Your task to perform on an android device: turn on notifications settings in the gmail app Image 0: 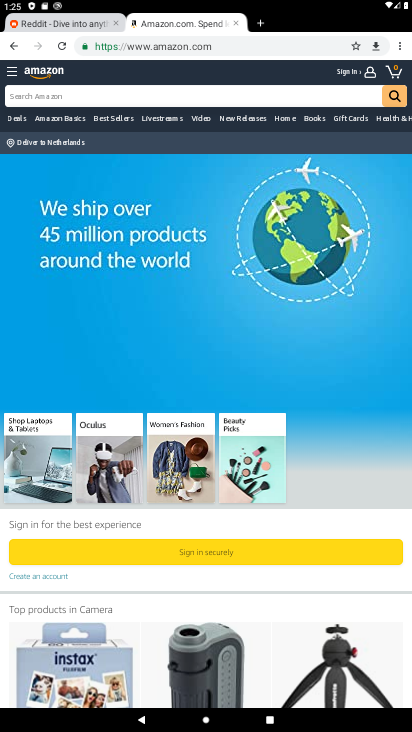
Step 0: press home button
Your task to perform on an android device: turn on notifications settings in the gmail app Image 1: 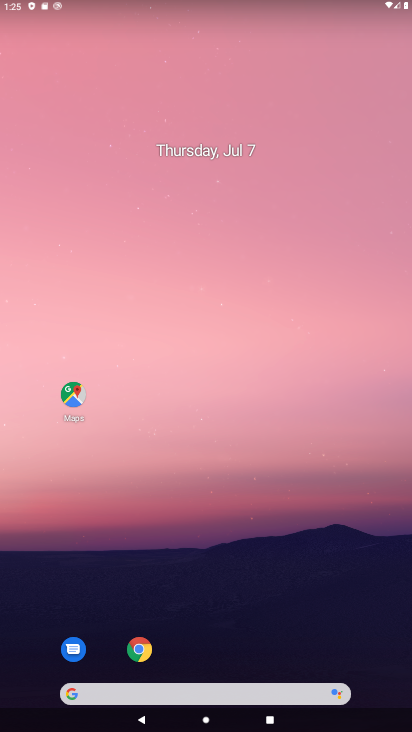
Step 1: drag from (376, 657) to (311, 48)
Your task to perform on an android device: turn on notifications settings in the gmail app Image 2: 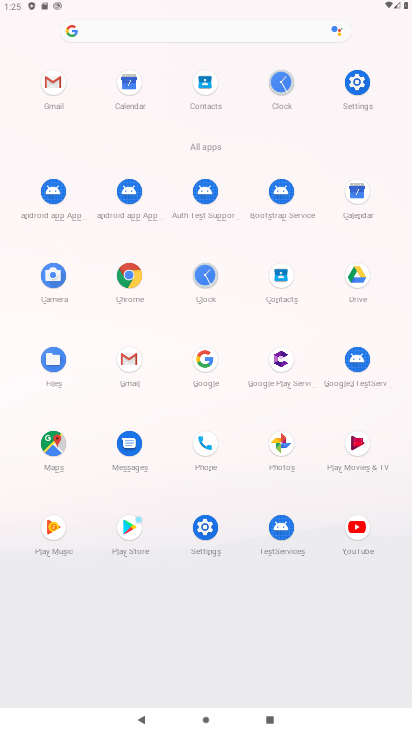
Step 2: click (127, 359)
Your task to perform on an android device: turn on notifications settings in the gmail app Image 3: 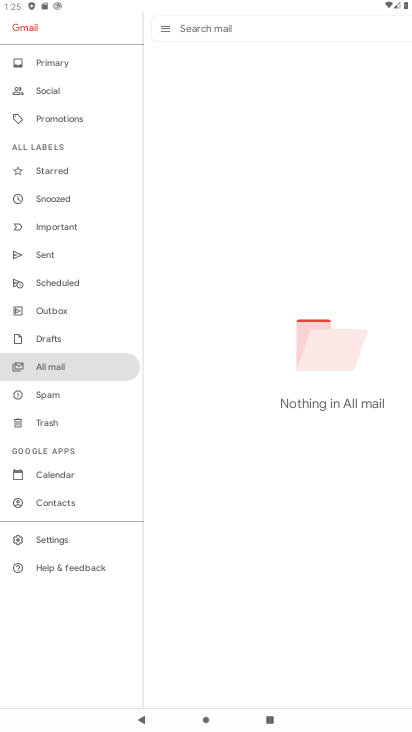
Step 3: click (56, 532)
Your task to perform on an android device: turn on notifications settings in the gmail app Image 4: 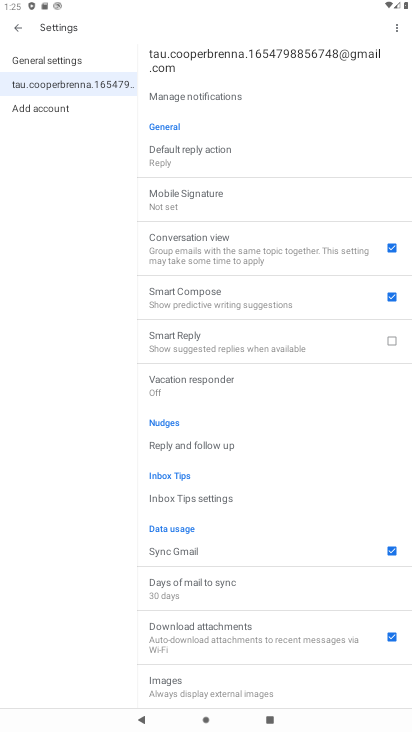
Step 4: drag from (303, 161) to (258, 537)
Your task to perform on an android device: turn on notifications settings in the gmail app Image 5: 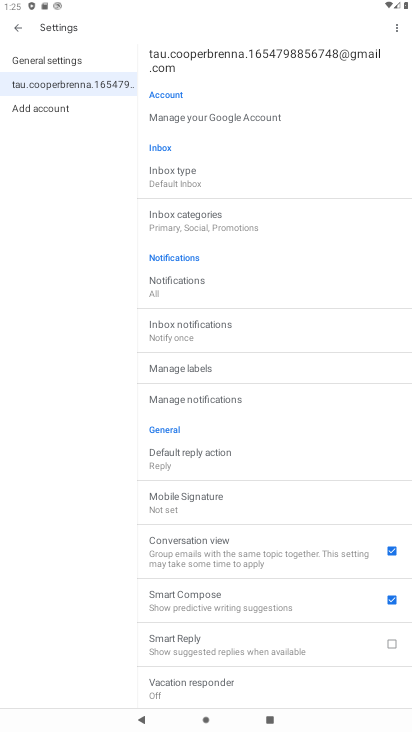
Step 5: click (200, 398)
Your task to perform on an android device: turn on notifications settings in the gmail app Image 6: 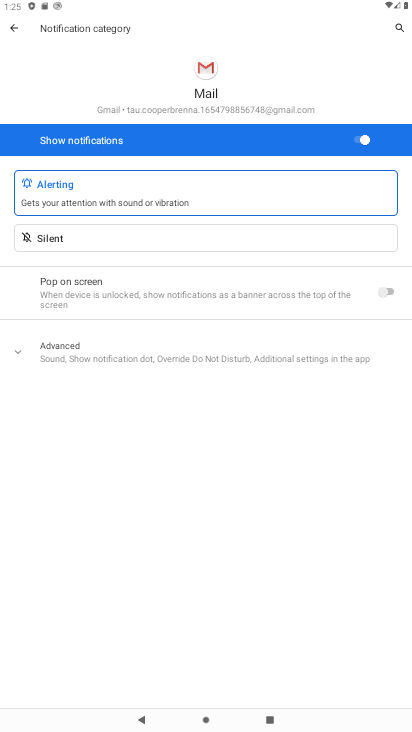
Step 6: task complete